Your task to perform on an android device: Do I have any events tomorrow? Image 0: 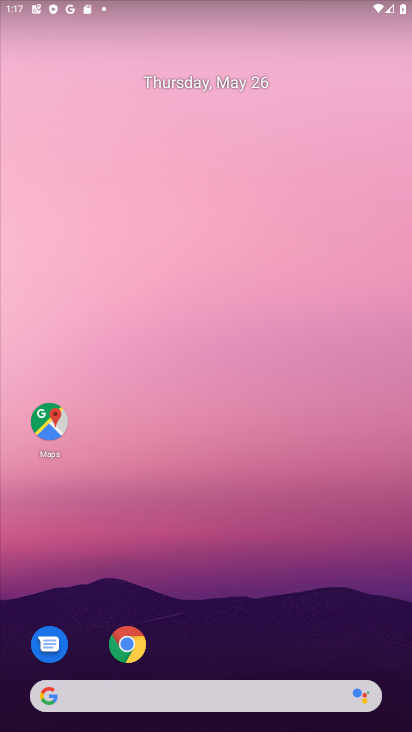
Step 0: drag from (215, 568) to (210, 312)
Your task to perform on an android device: Do I have any events tomorrow? Image 1: 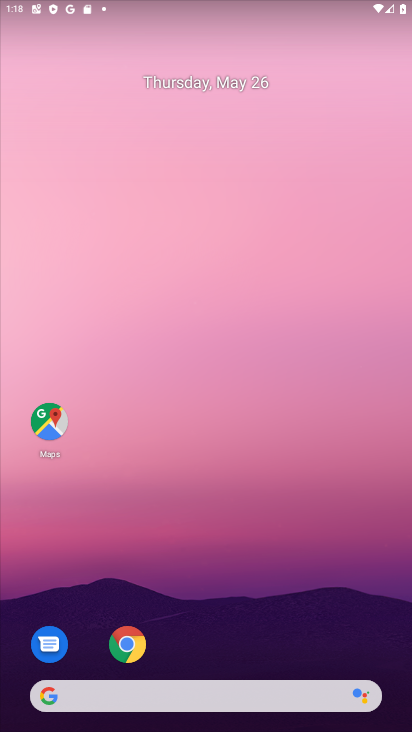
Step 1: drag from (210, 615) to (254, 166)
Your task to perform on an android device: Do I have any events tomorrow? Image 2: 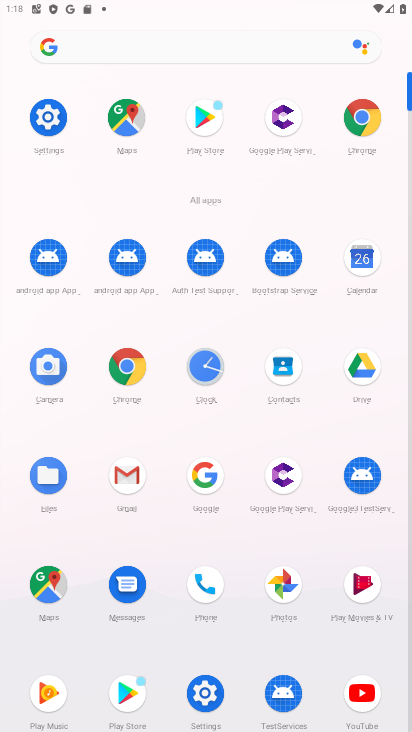
Step 2: drag from (198, 601) to (204, 451)
Your task to perform on an android device: Do I have any events tomorrow? Image 3: 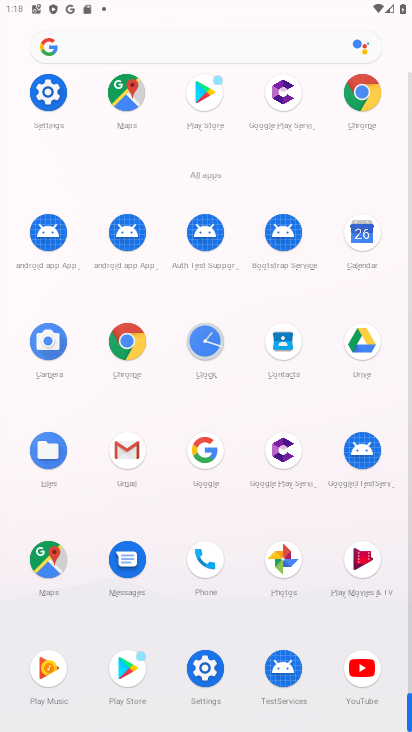
Step 3: click (360, 227)
Your task to perform on an android device: Do I have any events tomorrow? Image 4: 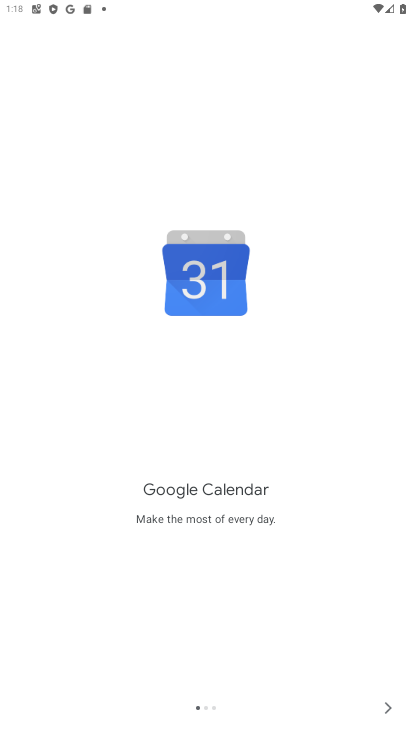
Step 4: click (389, 708)
Your task to perform on an android device: Do I have any events tomorrow? Image 5: 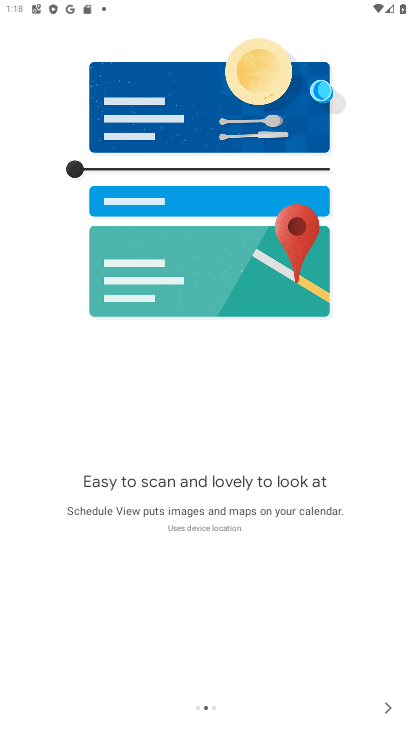
Step 5: click (389, 708)
Your task to perform on an android device: Do I have any events tomorrow? Image 6: 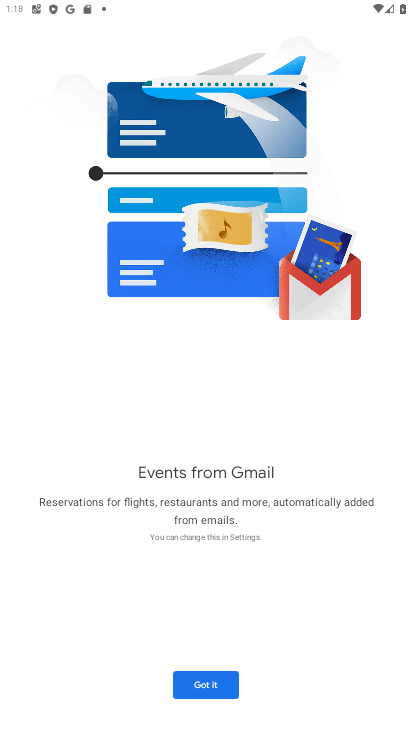
Step 6: click (225, 674)
Your task to perform on an android device: Do I have any events tomorrow? Image 7: 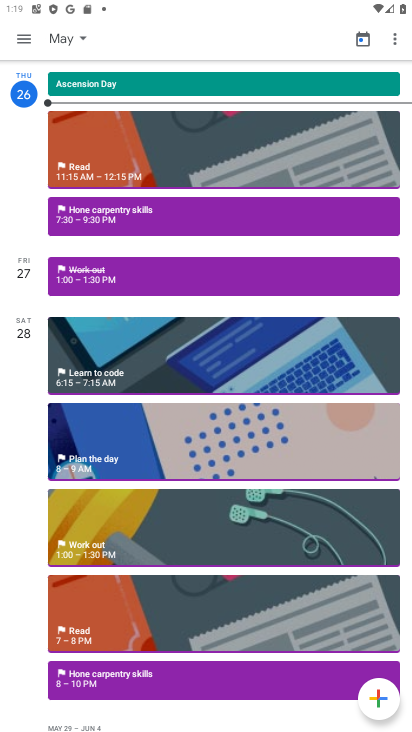
Step 7: task complete